Your task to perform on an android device: turn pop-ups on in chrome Image 0: 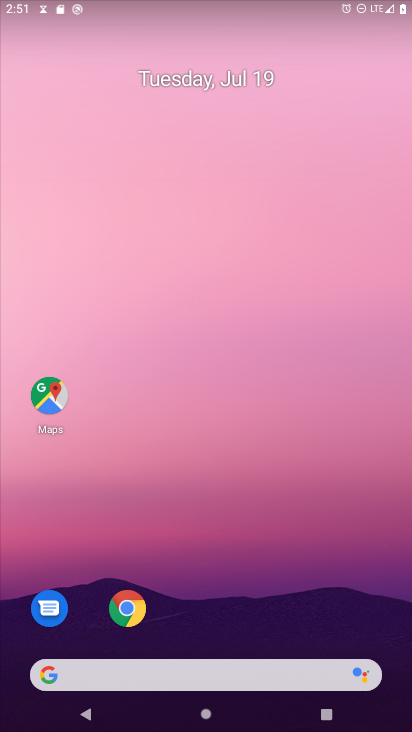
Step 0: drag from (186, 664) to (238, 7)
Your task to perform on an android device: turn pop-ups on in chrome Image 1: 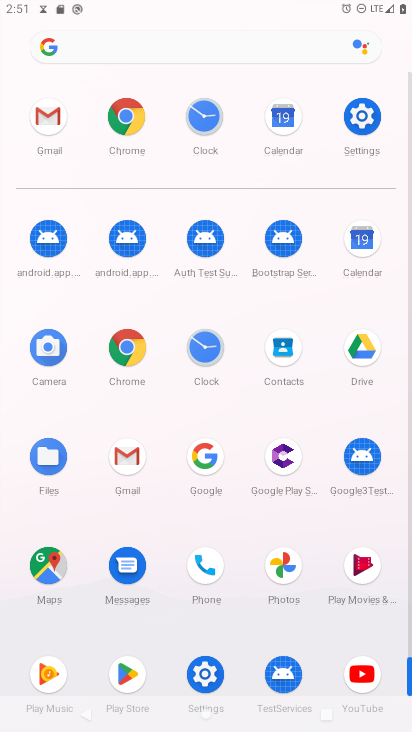
Step 1: click (129, 353)
Your task to perform on an android device: turn pop-ups on in chrome Image 2: 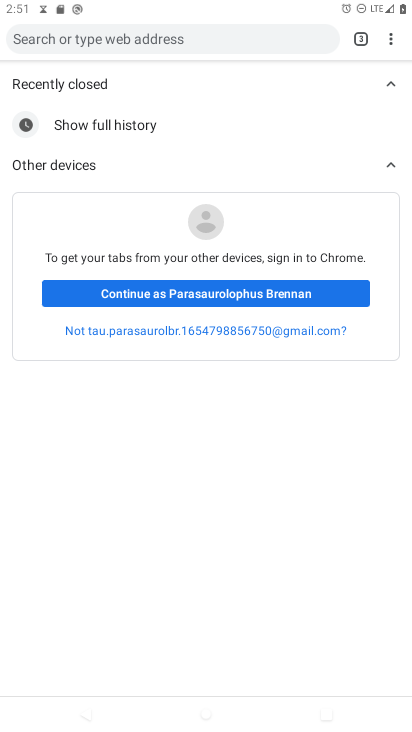
Step 2: drag from (388, 33) to (295, 333)
Your task to perform on an android device: turn pop-ups on in chrome Image 3: 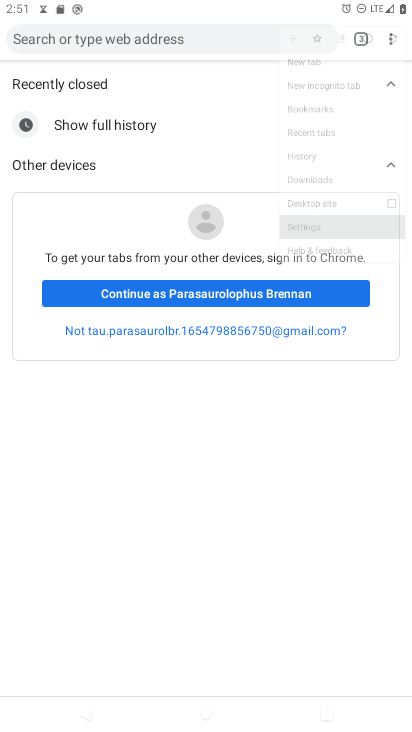
Step 3: click (268, 335)
Your task to perform on an android device: turn pop-ups on in chrome Image 4: 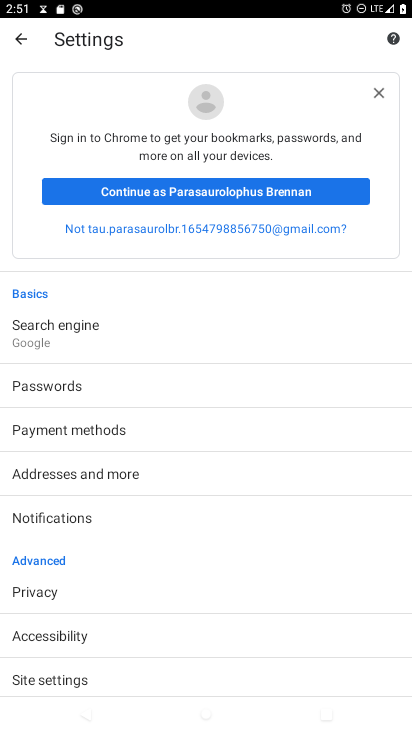
Step 4: drag from (149, 626) to (188, 356)
Your task to perform on an android device: turn pop-ups on in chrome Image 5: 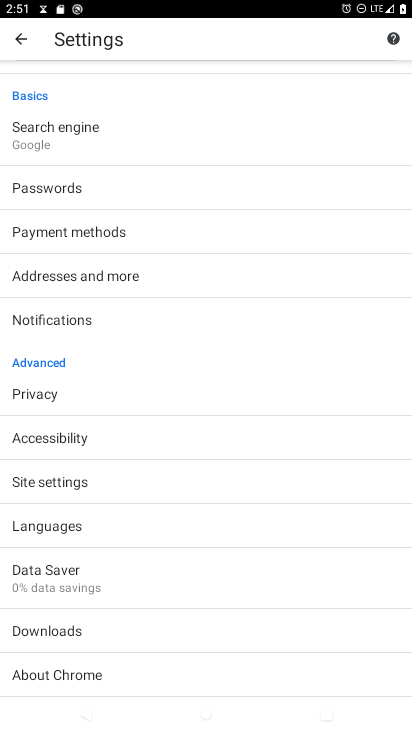
Step 5: click (80, 487)
Your task to perform on an android device: turn pop-ups on in chrome Image 6: 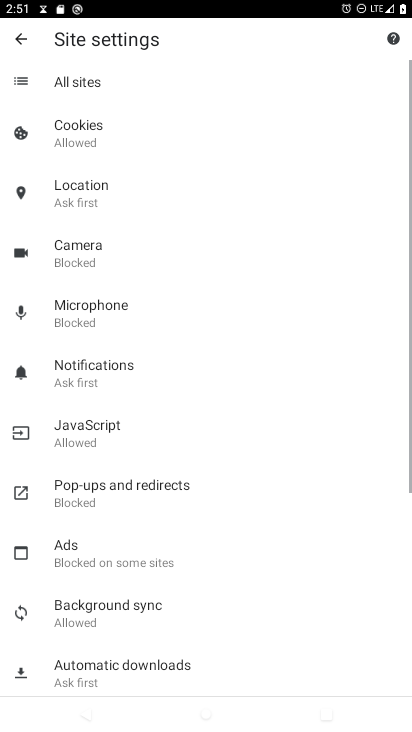
Step 6: click (158, 488)
Your task to perform on an android device: turn pop-ups on in chrome Image 7: 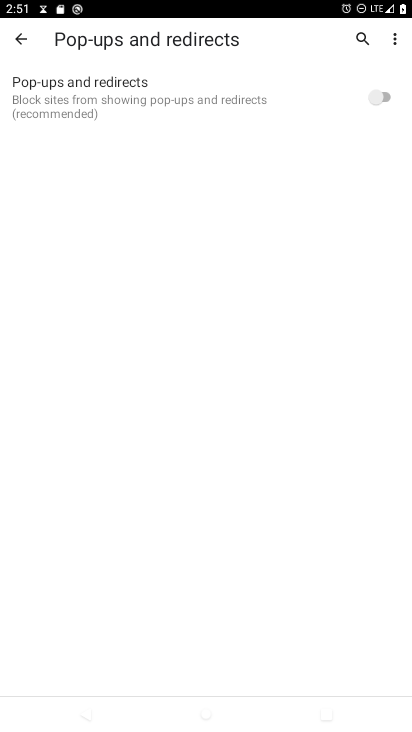
Step 7: click (383, 93)
Your task to perform on an android device: turn pop-ups on in chrome Image 8: 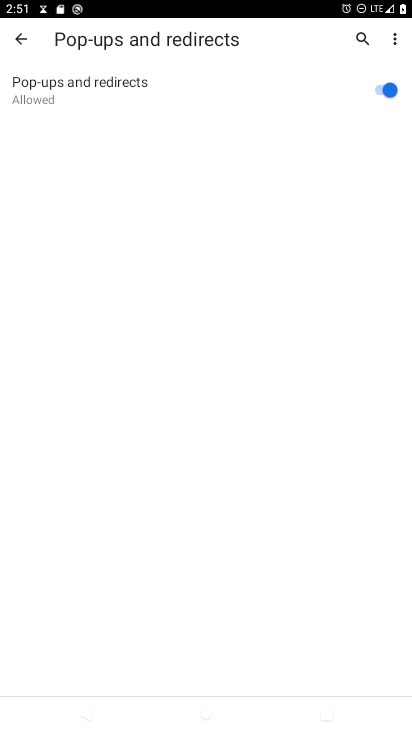
Step 8: task complete